Your task to perform on an android device: turn on notifications settings in the gmail app Image 0: 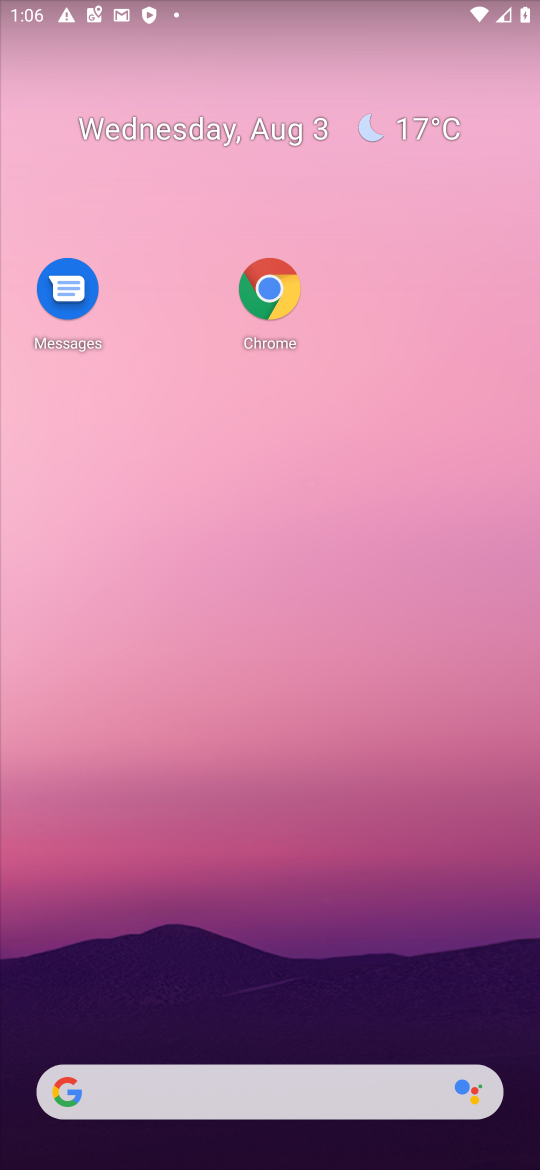
Step 0: drag from (366, 1024) to (236, 349)
Your task to perform on an android device: turn on notifications settings in the gmail app Image 1: 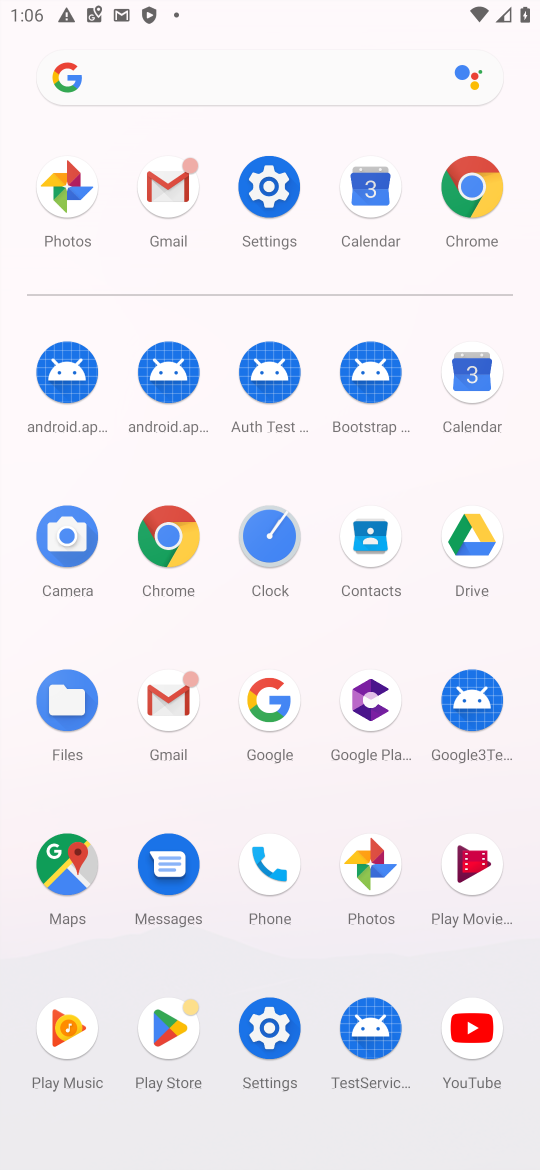
Step 1: click (156, 201)
Your task to perform on an android device: turn on notifications settings in the gmail app Image 2: 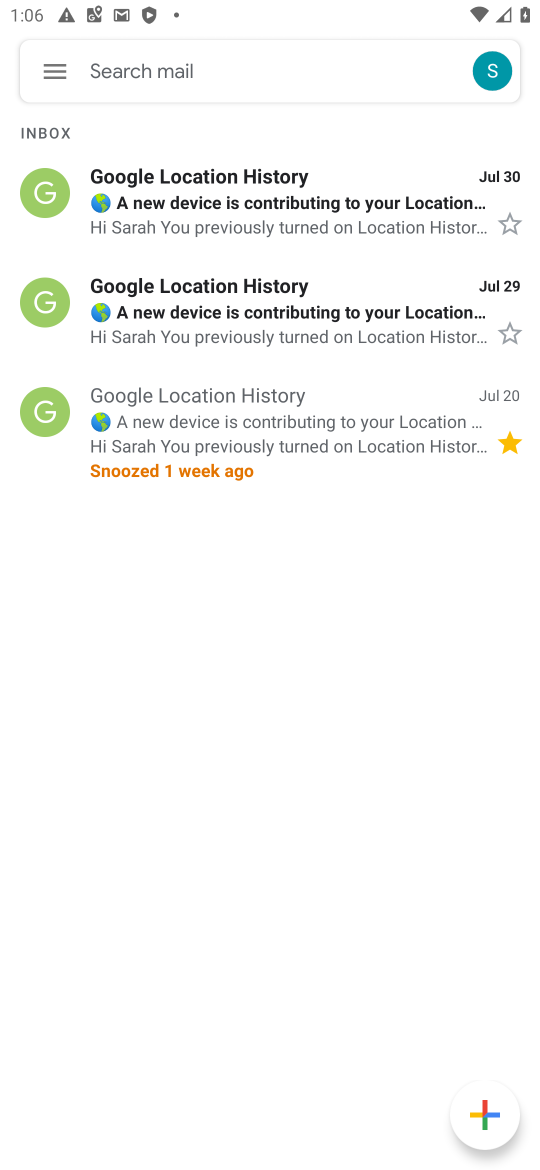
Step 2: click (480, 85)
Your task to perform on an android device: turn on notifications settings in the gmail app Image 3: 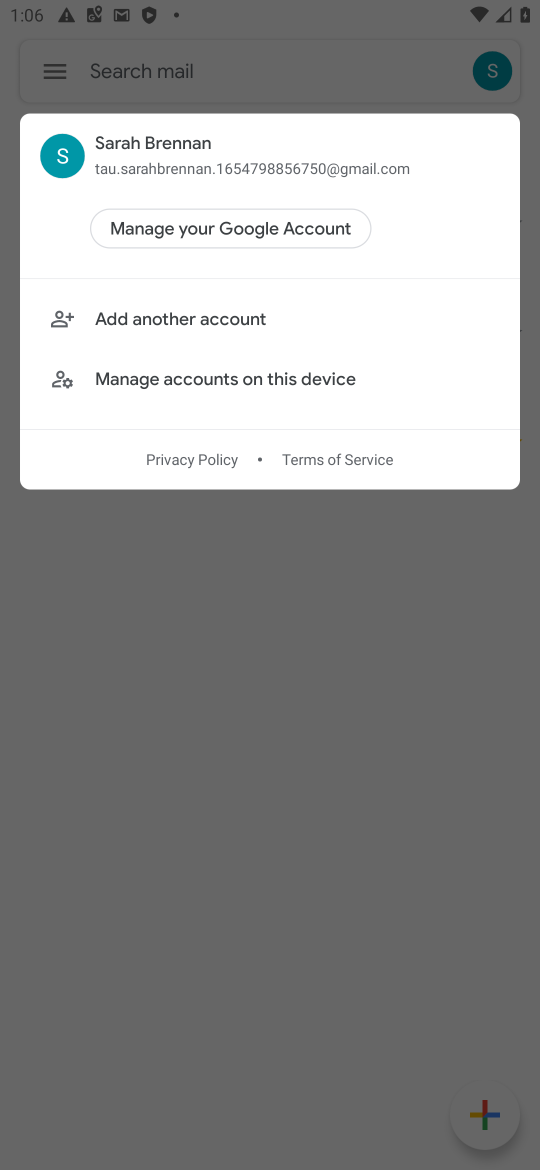
Step 3: click (310, 772)
Your task to perform on an android device: turn on notifications settings in the gmail app Image 4: 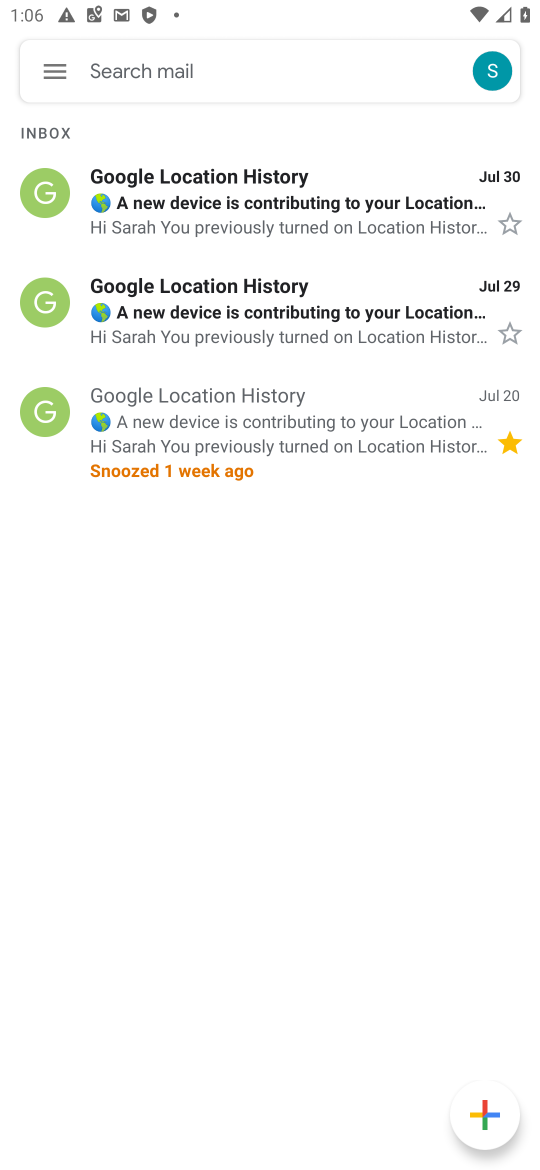
Step 4: click (57, 76)
Your task to perform on an android device: turn on notifications settings in the gmail app Image 5: 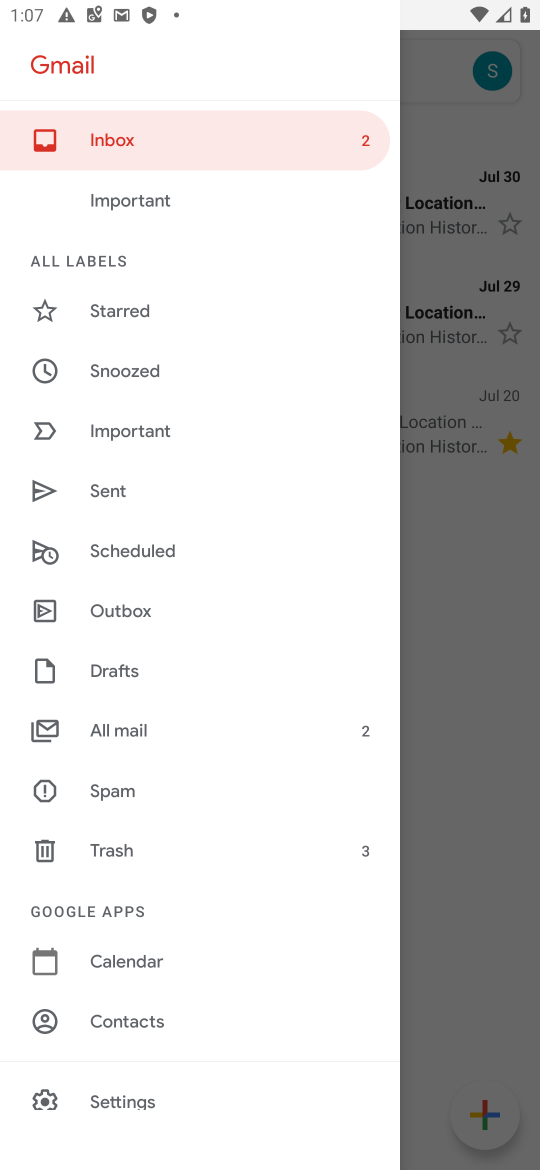
Step 5: click (107, 1100)
Your task to perform on an android device: turn on notifications settings in the gmail app Image 6: 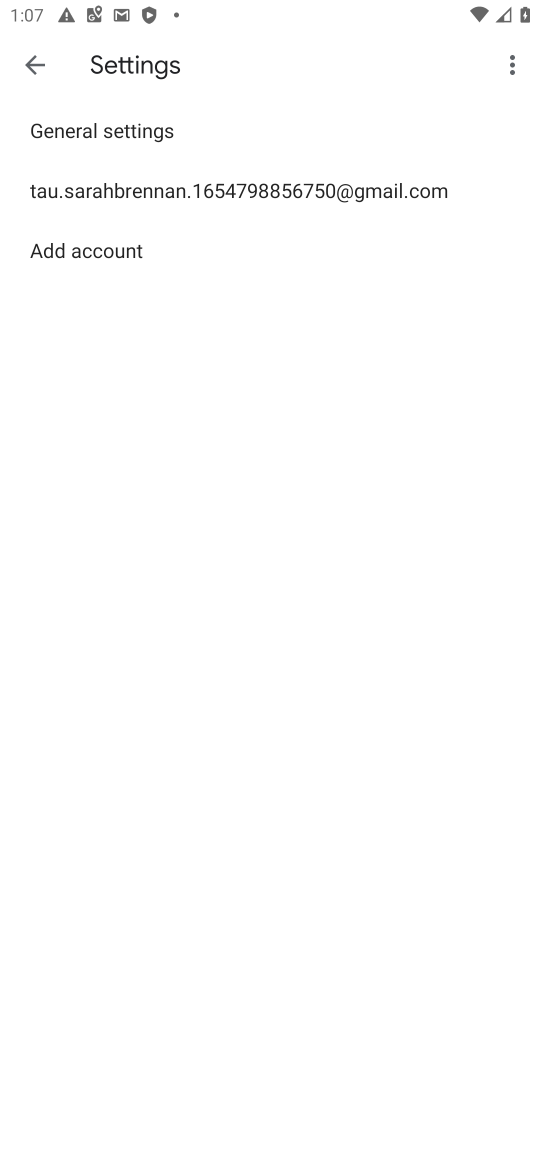
Step 6: click (90, 208)
Your task to perform on an android device: turn on notifications settings in the gmail app Image 7: 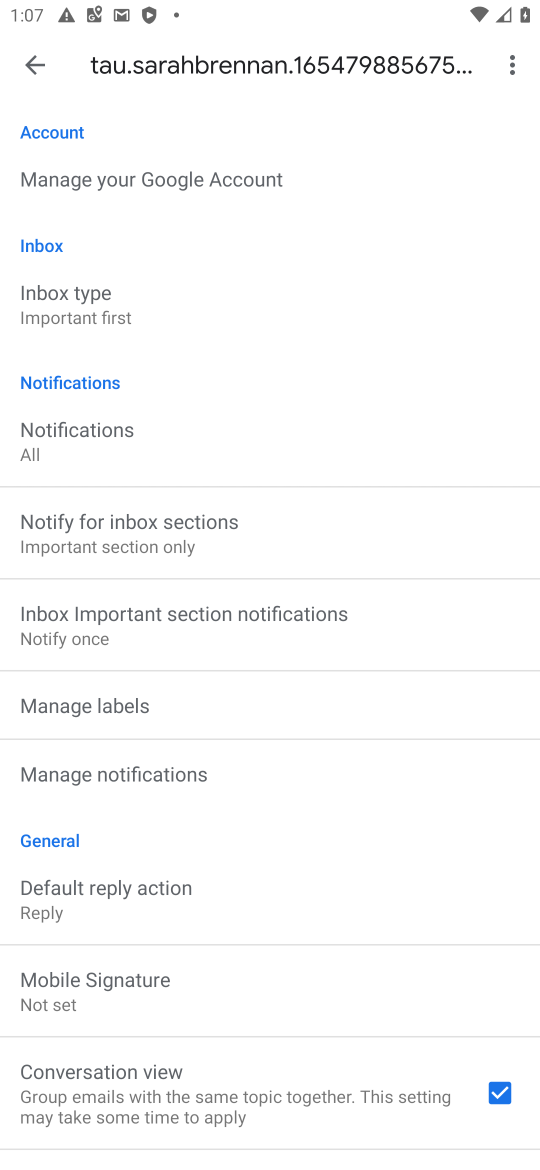
Step 7: task complete